Your task to perform on an android device: turn on location history Image 0: 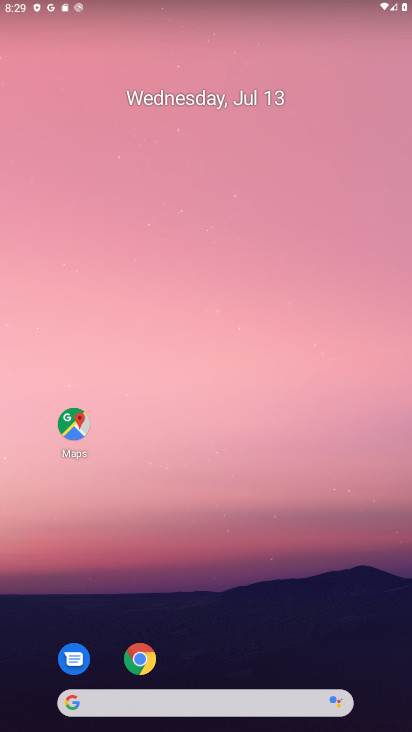
Step 0: drag from (235, 658) to (221, 94)
Your task to perform on an android device: turn on location history Image 1: 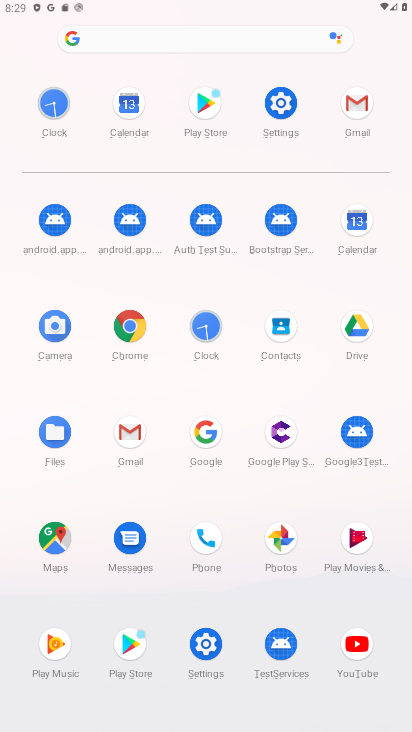
Step 1: click (279, 135)
Your task to perform on an android device: turn on location history Image 2: 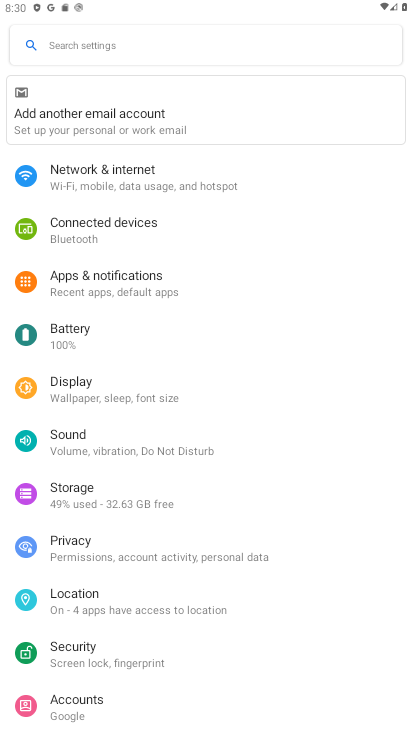
Step 2: click (114, 601)
Your task to perform on an android device: turn on location history Image 3: 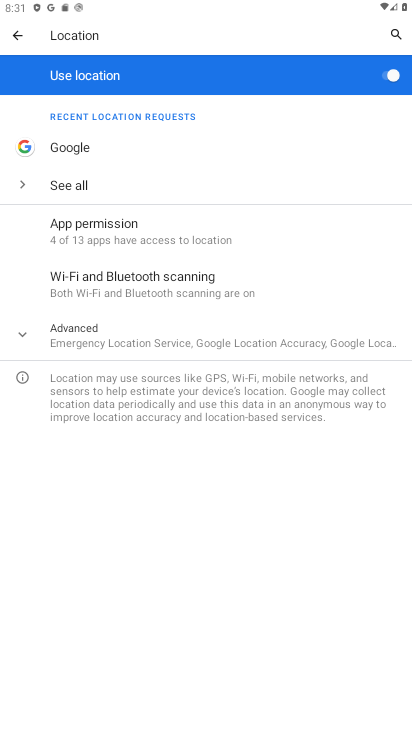
Step 3: click (122, 336)
Your task to perform on an android device: turn on location history Image 4: 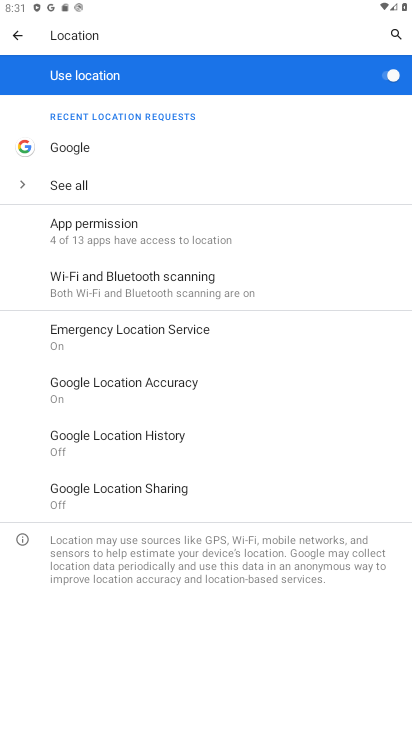
Step 4: click (119, 428)
Your task to perform on an android device: turn on location history Image 5: 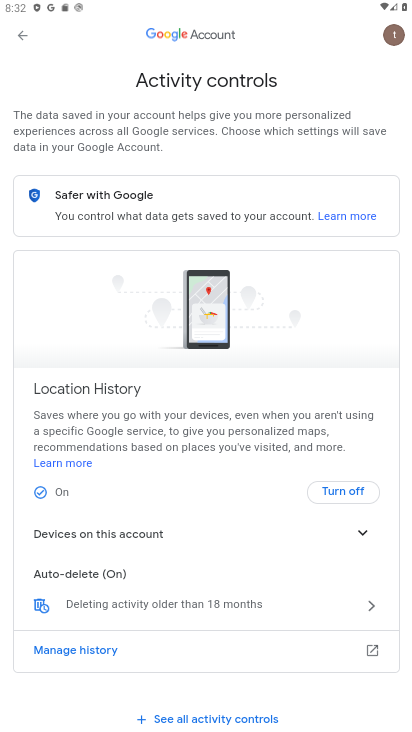
Step 5: click (51, 488)
Your task to perform on an android device: turn on location history Image 6: 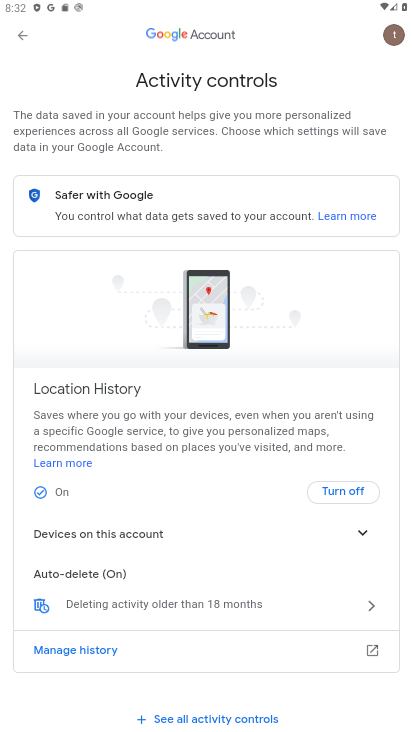
Step 6: task complete